Your task to perform on an android device: change keyboard looks Image 0: 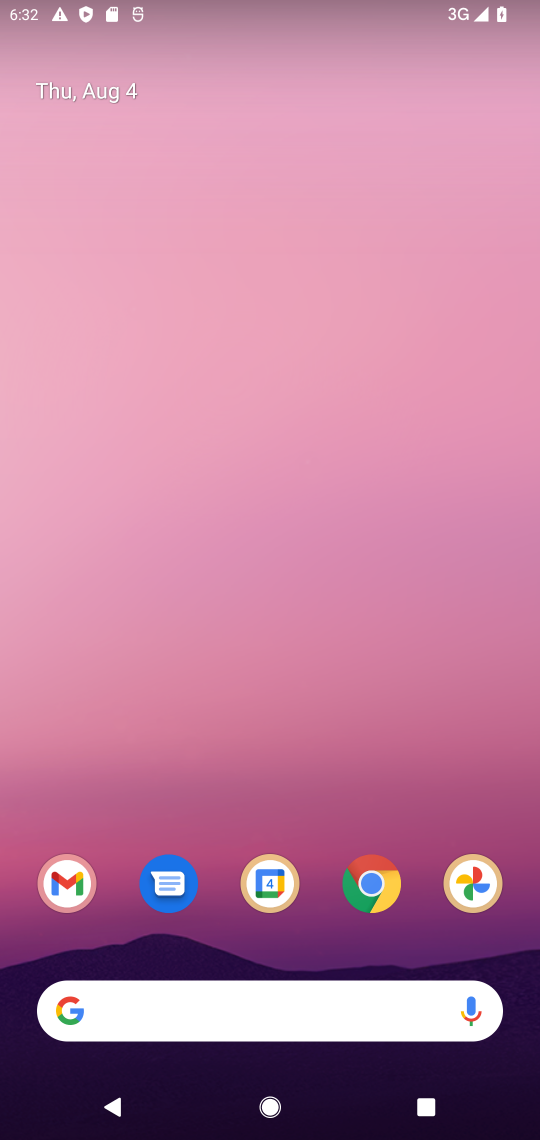
Step 0: drag from (420, 816) to (352, 13)
Your task to perform on an android device: change keyboard looks Image 1: 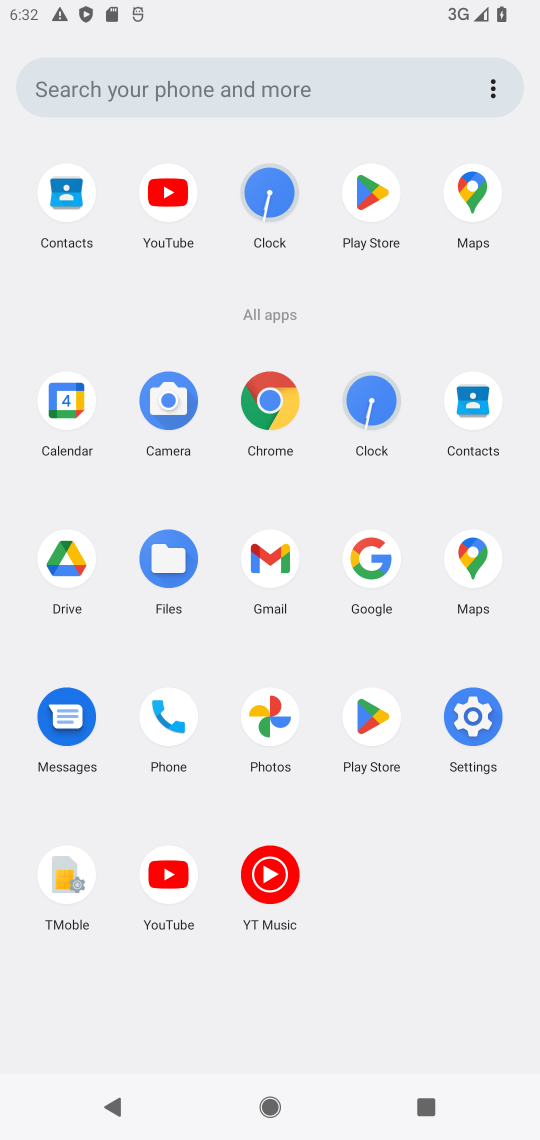
Step 1: click (477, 705)
Your task to perform on an android device: change keyboard looks Image 2: 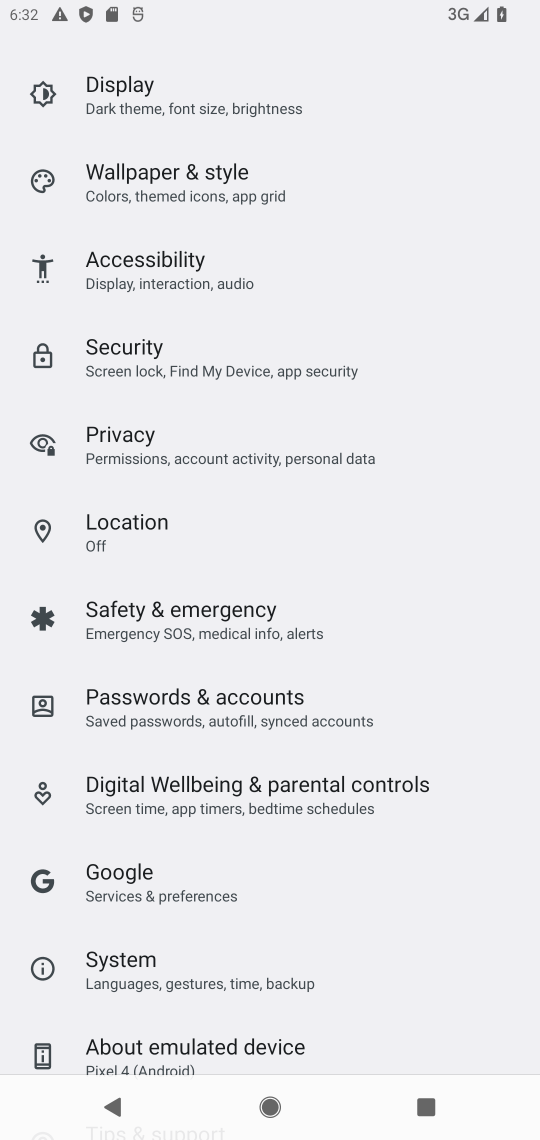
Step 2: drag from (406, 1021) to (351, 578)
Your task to perform on an android device: change keyboard looks Image 3: 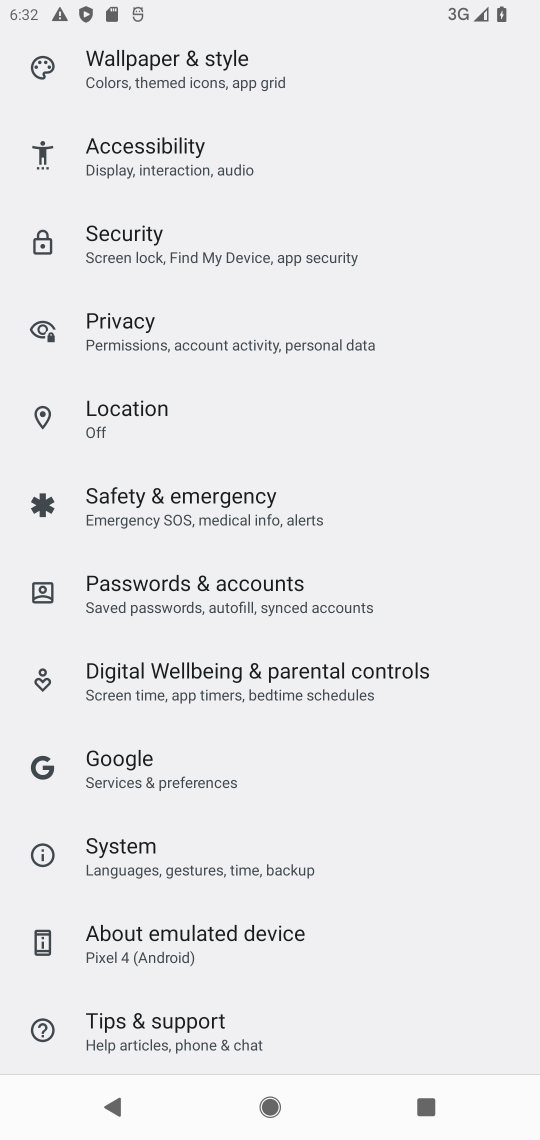
Step 3: click (259, 861)
Your task to perform on an android device: change keyboard looks Image 4: 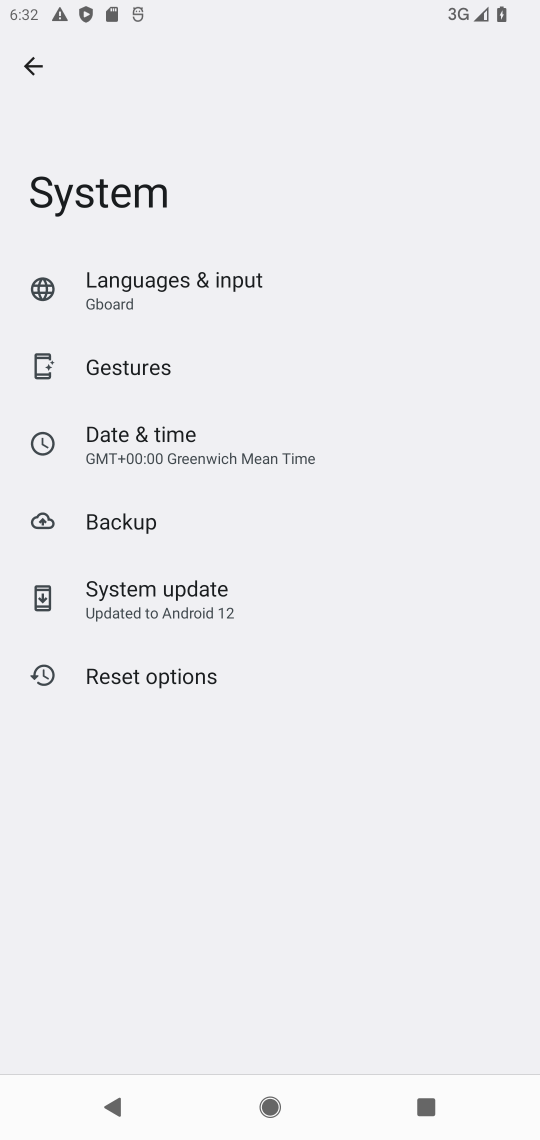
Step 4: click (305, 284)
Your task to perform on an android device: change keyboard looks Image 5: 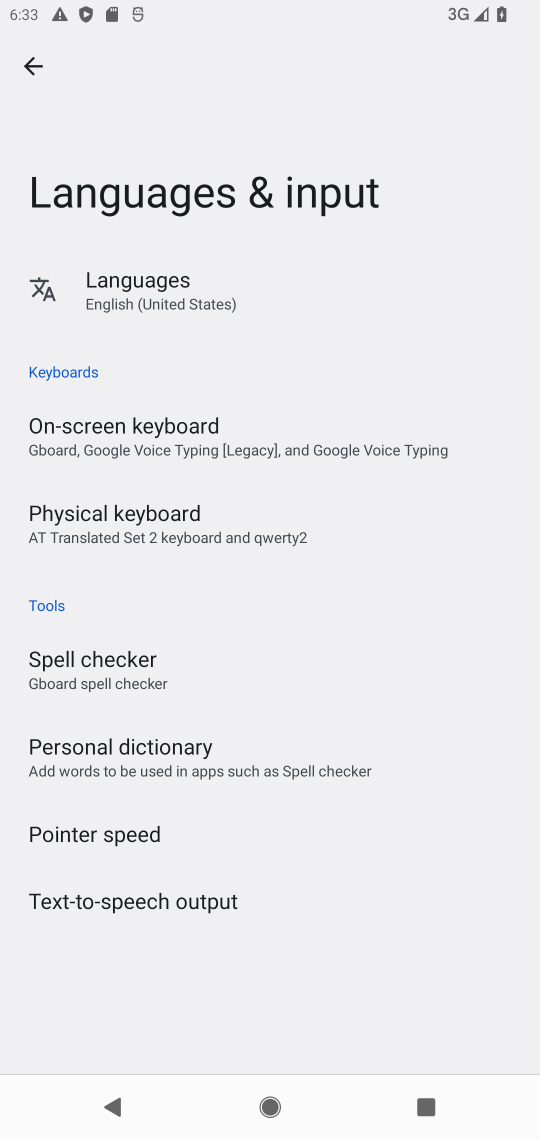
Step 5: click (321, 443)
Your task to perform on an android device: change keyboard looks Image 6: 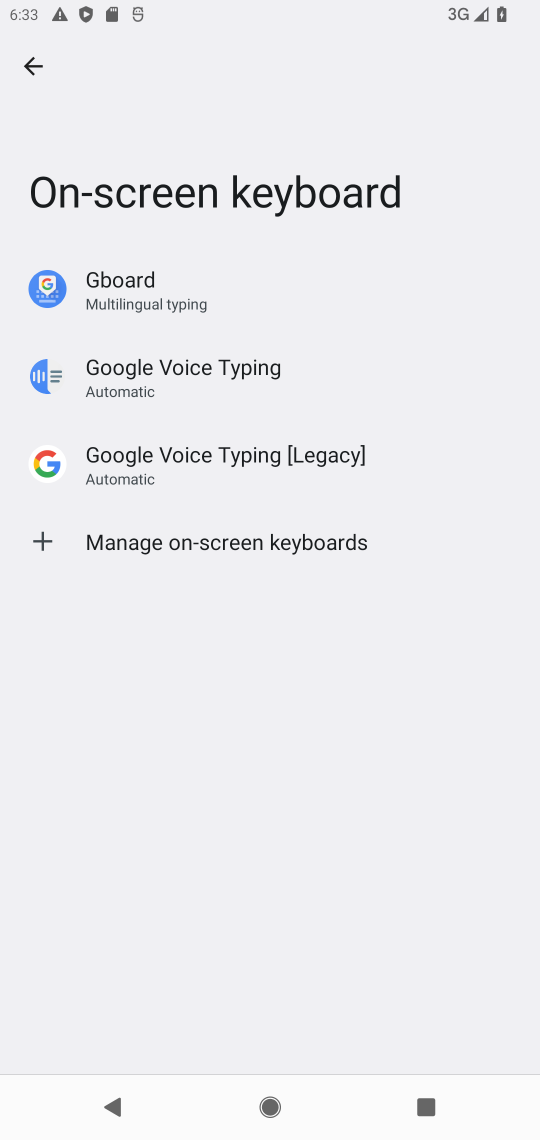
Step 6: click (232, 304)
Your task to perform on an android device: change keyboard looks Image 7: 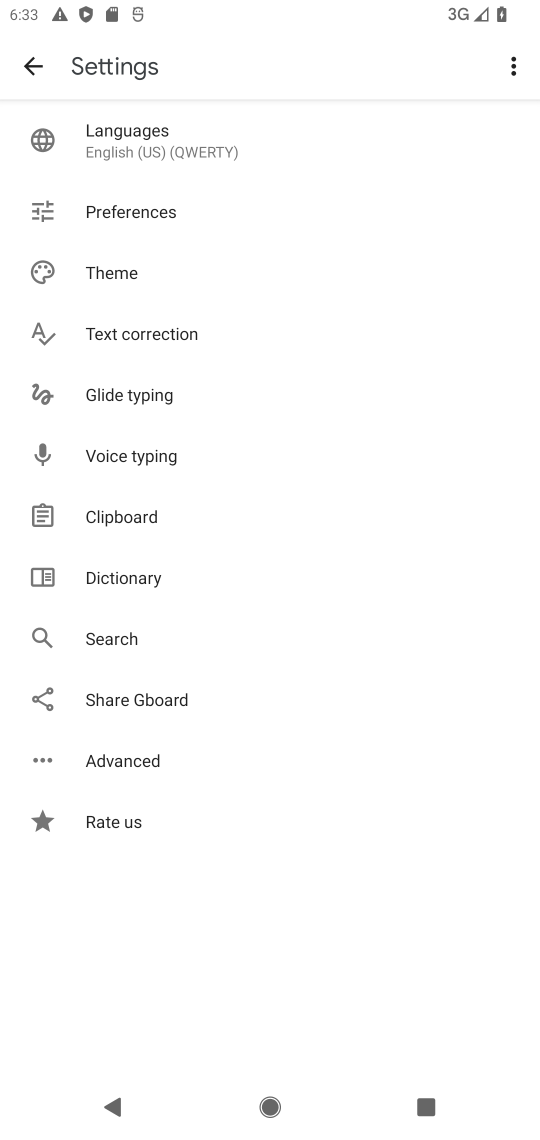
Step 7: click (138, 279)
Your task to perform on an android device: change keyboard looks Image 8: 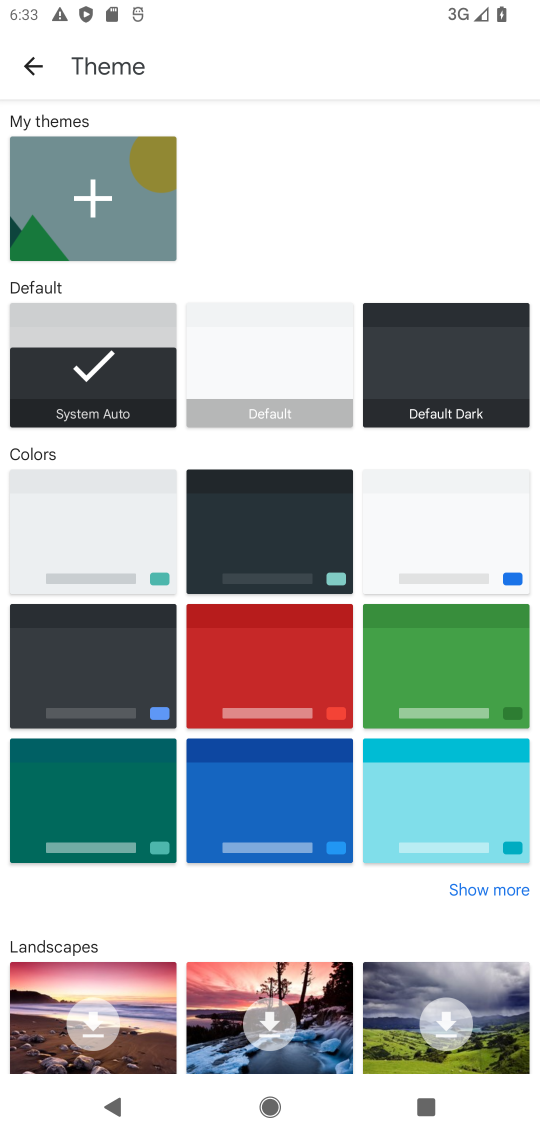
Step 8: click (224, 508)
Your task to perform on an android device: change keyboard looks Image 9: 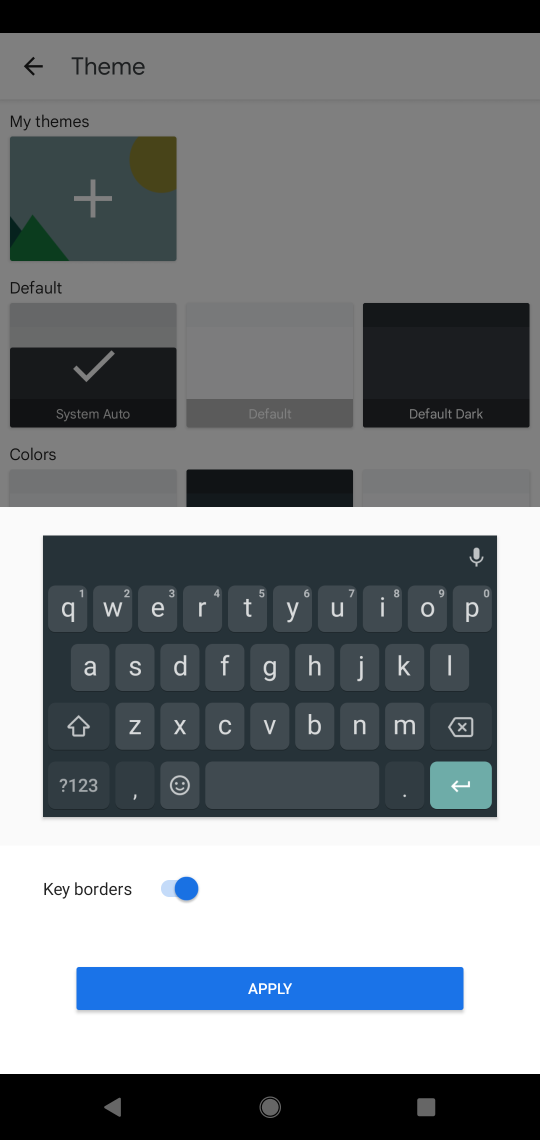
Step 9: click (301, 980)
Your task to perform on an android device: change keyboard looks Image 10: 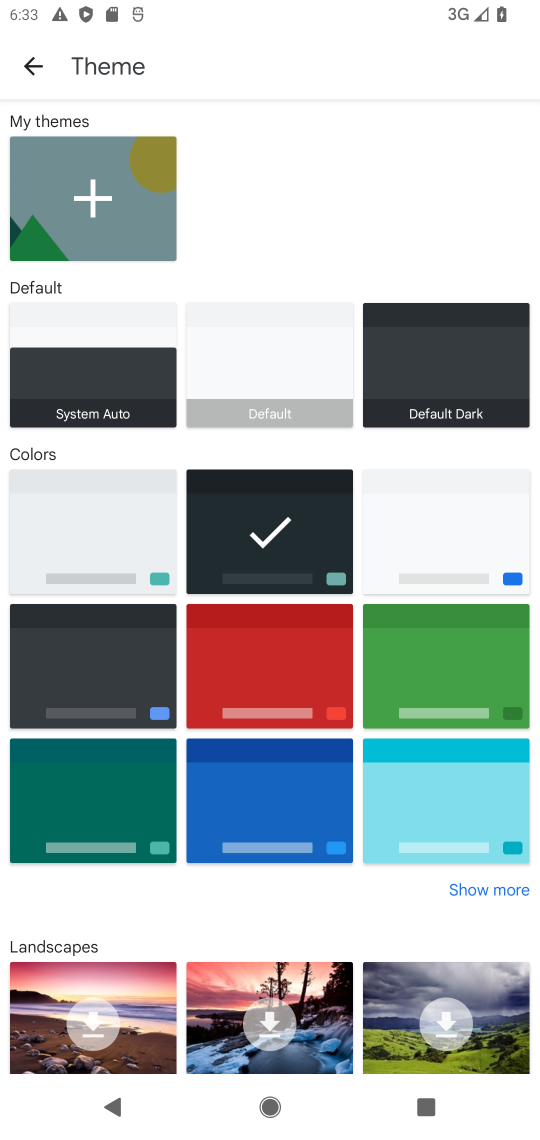
Step 10: task complete